Your task to perform on an android device: clear history in the chrome app Image 0: 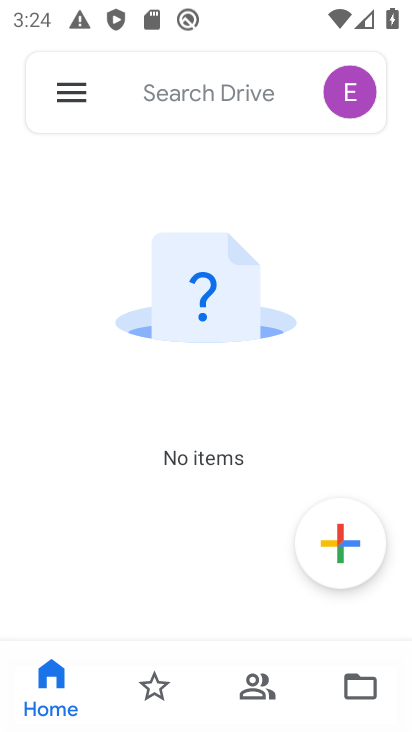
Step 0: press home button
Your task to perform on an android device: clear history in the chrome app Image 1: 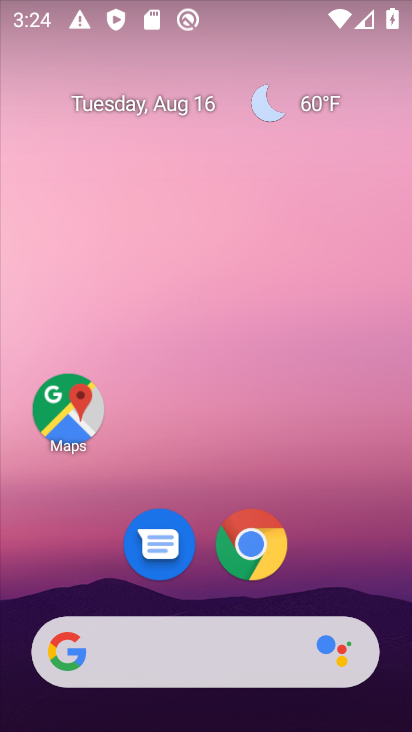
Step 1: drag from (360, 494) to (196, 36)
Your task to perform on an android device: clear history in the chrome app Image 2: 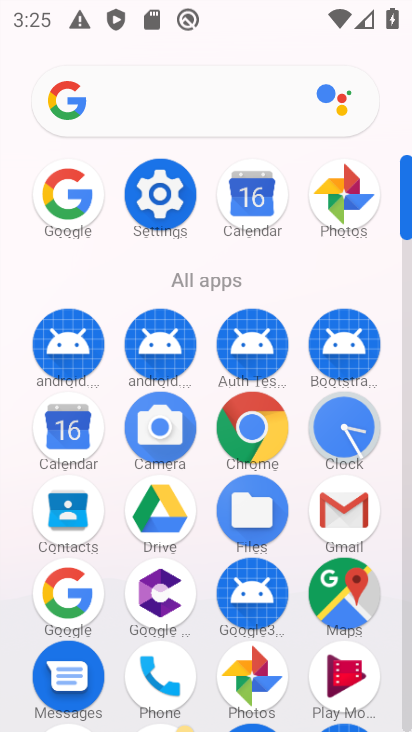
Step 2: click (242, 444)
Your task to perform on an android device: clear history in the chrome app Image 3: 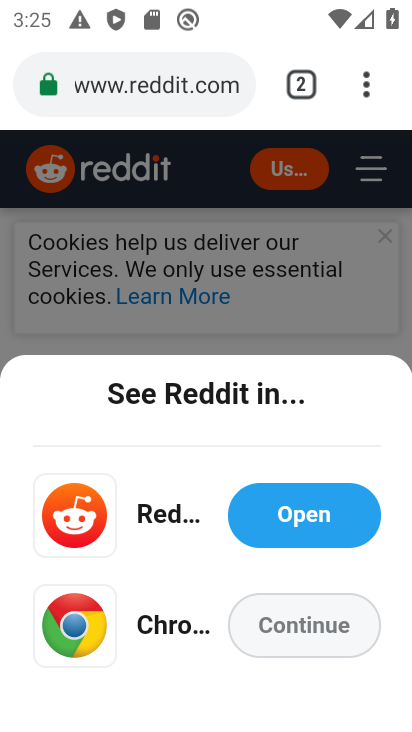
Step 3: click (363, 91)
Your task to perform on an android device: clear history in the chrome app Image 4: 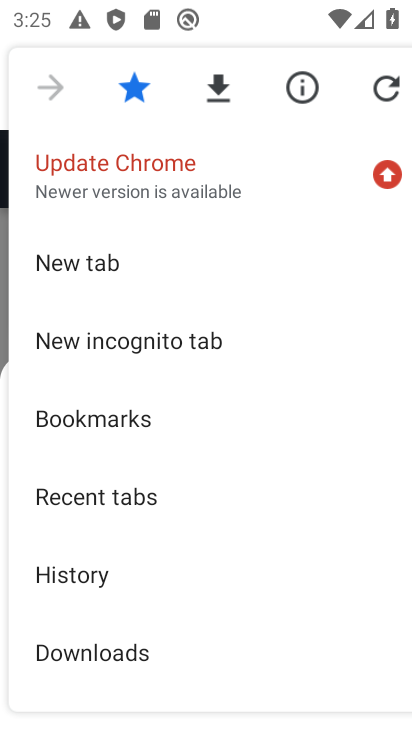
Step 4: drag from (141, 645) to (163, 188)
Your task to perform on an android device: clear history in the chrome app Image 5: 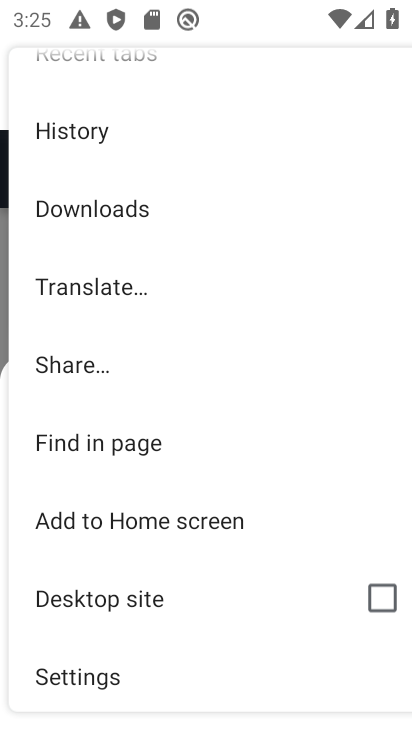
Step 5: click (67, 129)
Your task to perform on an android device: clear history in the chrome app Image 6: 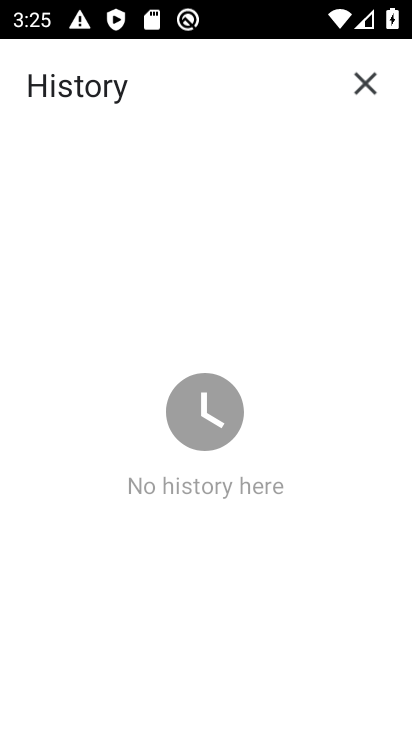
Step 6: task complete